Your task to perform on an android device: Open Reddit.com Image 0: 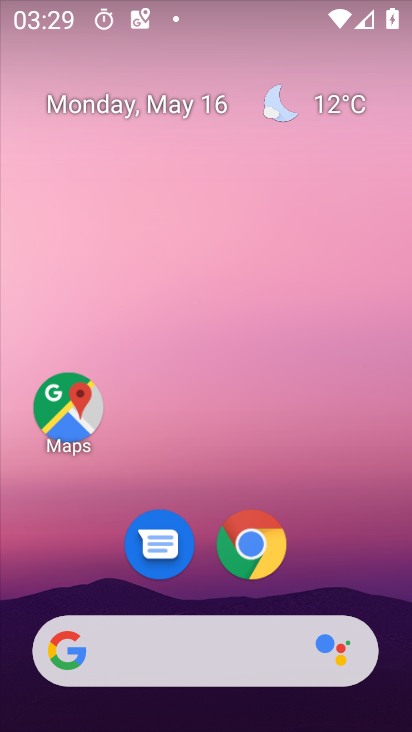
Step 0: click (258, 542)
Your task to perform on an android device: Open Reddit.com Image 1: 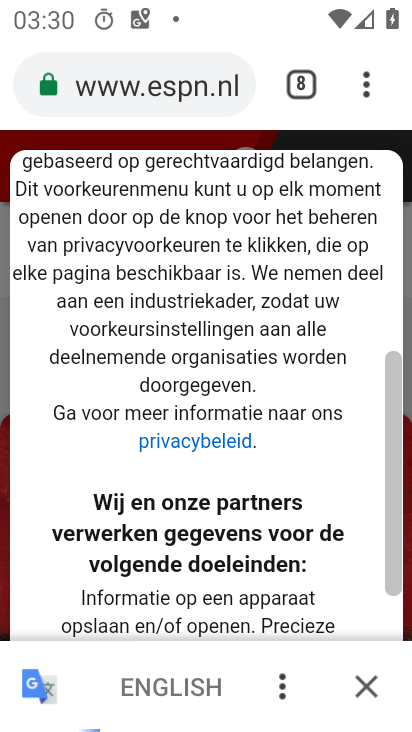
Step 1: click (370, 92)
Your task to perform on an android device: Open Reddit.com Image 2: 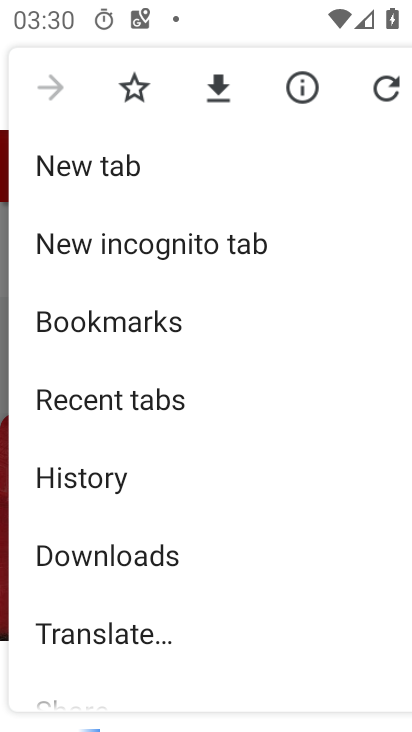
Step 2: click (76, 162)
Your task to perform on an android device: Open Reddit.com Image 3: 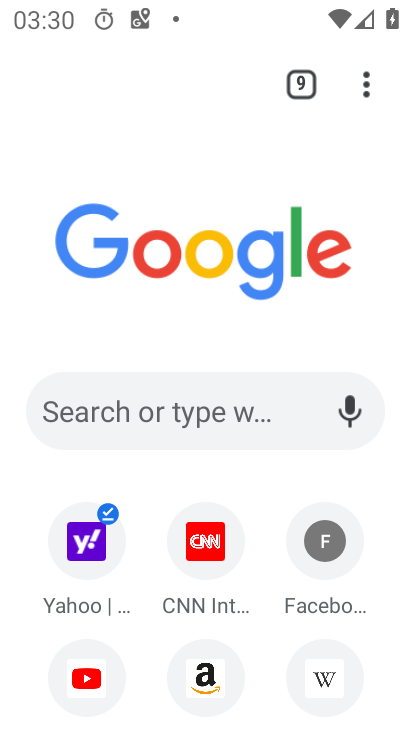
Step 3: click (150, 411)
Your task to perform on an android device: Open Reddit.com Image 4: 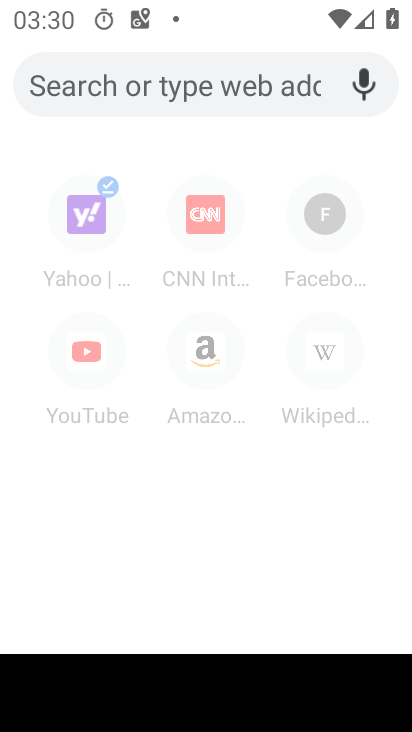
Step 4: type "Reddit.com"
Your task to perform on an android device: Open Reddit.com Image 5: 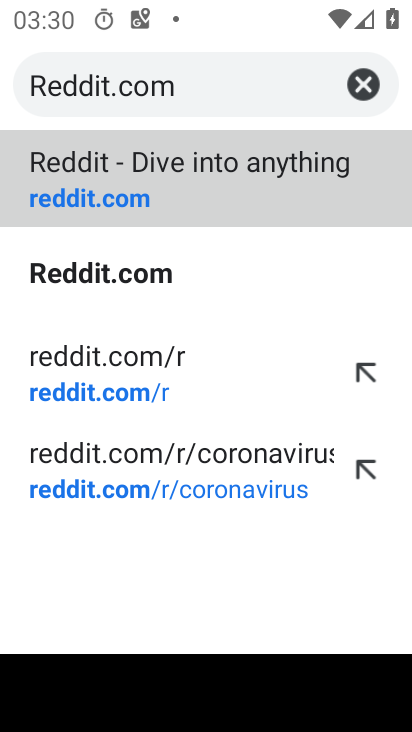
Step 5: click (86, 180)
Your task to perform on an android device: Open Reddit.com Image 6: 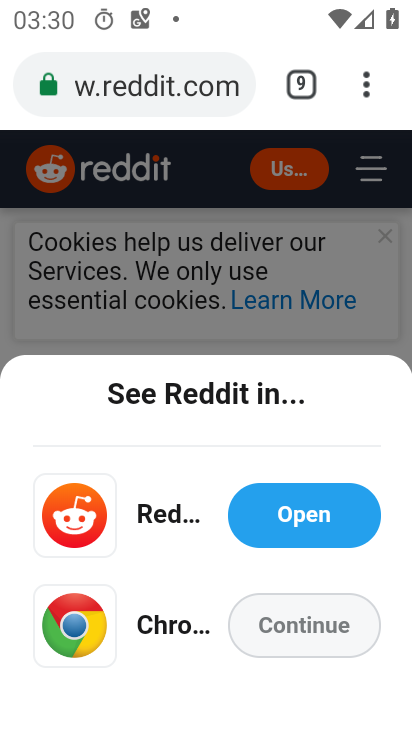
Step 6: task complete